Your task to perform on an android device: open a bookmark in the chrome app Image 0: 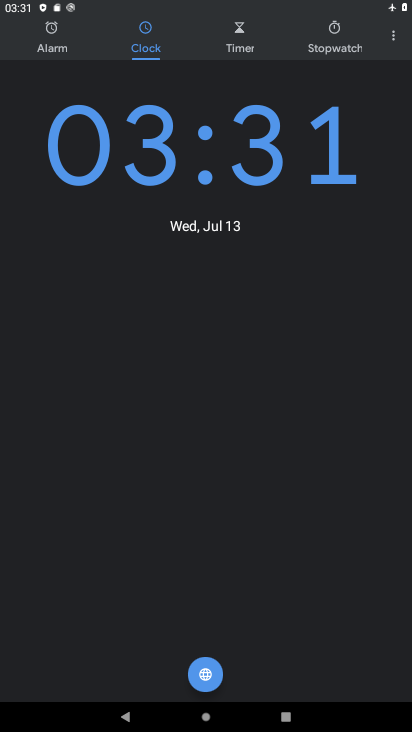
Step 0: press home button
Your task to perform on an android device: open a bookmark in the chrome app Image 1: 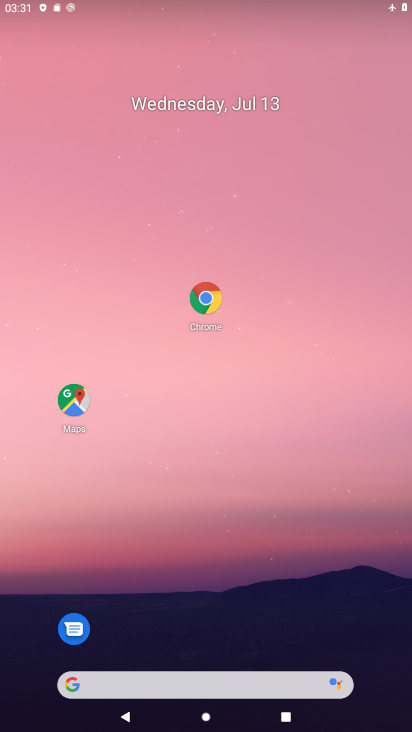
Step 1: drag from (250, 605) to (263, 266)
Your task to perform on an android device: open a bookmark in the chrome app Image 2: 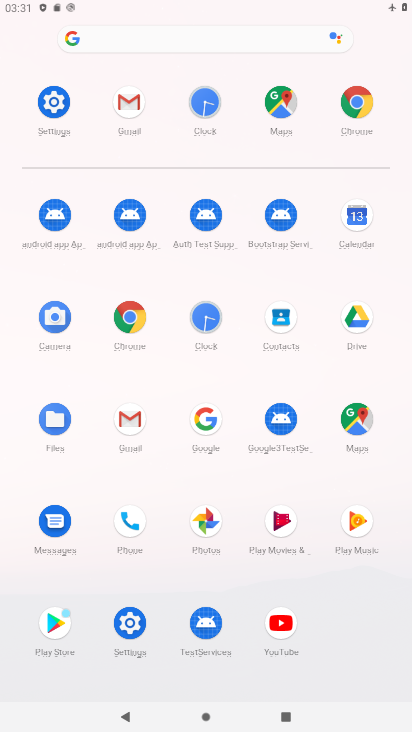
Step 2: click (354, 106)
Your task to perform on an android device: open a bookmark in the chrome app Image 3: 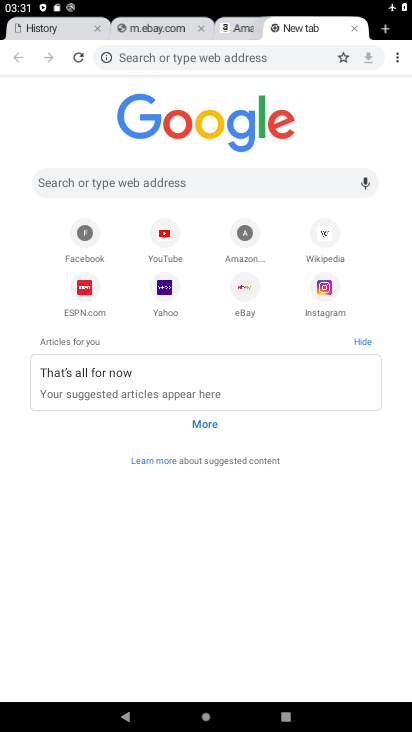
Step 3: click (364, 97)
Your task to perform on an android device: open a bookmark in the chrome app Image 4: 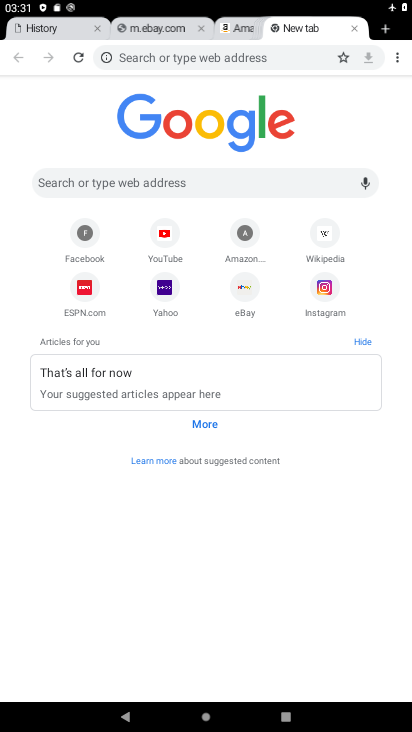
Step 4: click (358, 97)
Your task to perform on an android device: open a bookmark in the chrome app Image 5: 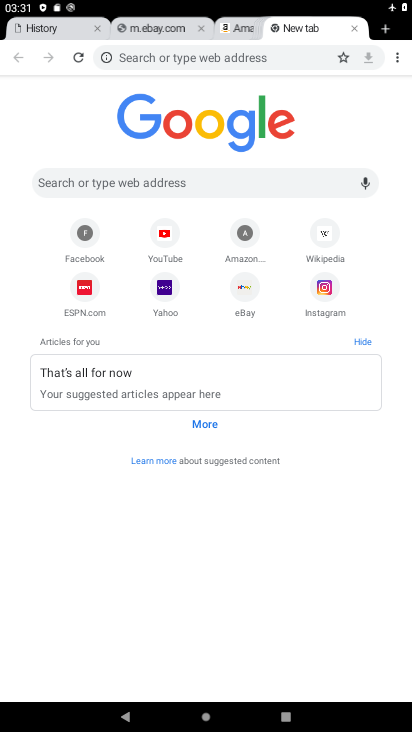
Step 5: click (405, 53)
Your task to perform on an android device: open a bookmark in the chrome app Image 6: 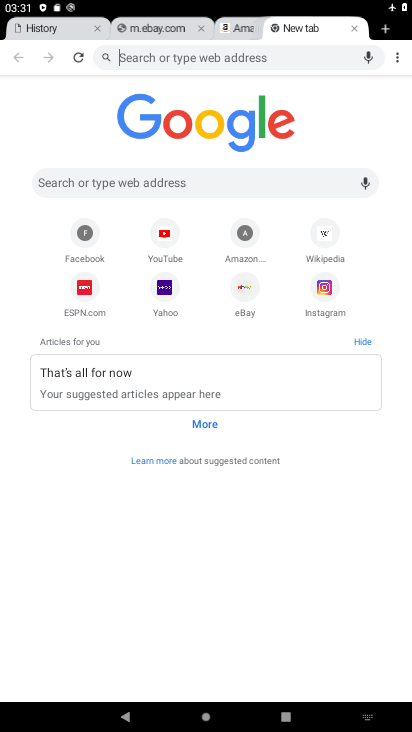
Step 6: click (409, 55)
Your task to perform on an android device: open a bookmark in the chrome app Image 7: 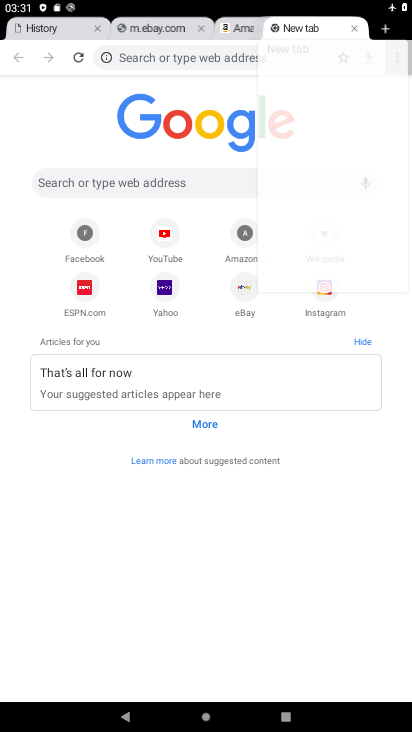
Step 7: click (386, 55)
Your task to perform on an android device: open a bookmark in the chrome app Image 8: 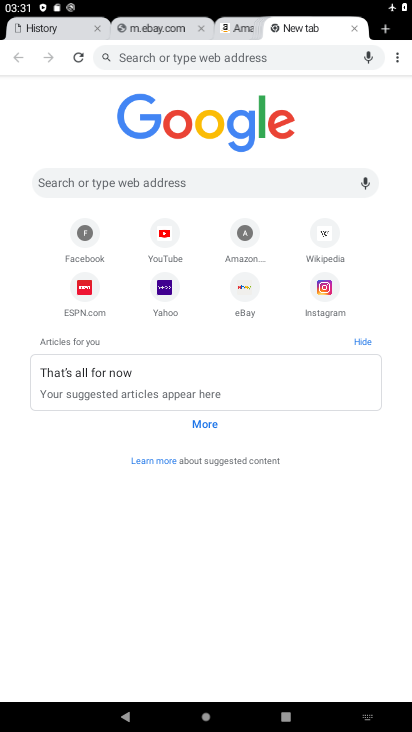
Step 8: click (395, 53)
Your task to perform on an android device: open a bookmark in the chrome app Image 9: 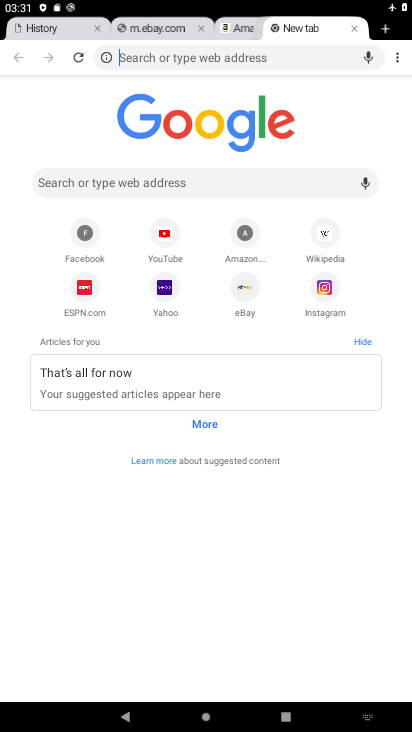
Step 9: click (384, 49)
Your task to perform on an android device: open a bookmark in the chrome app Image 10: 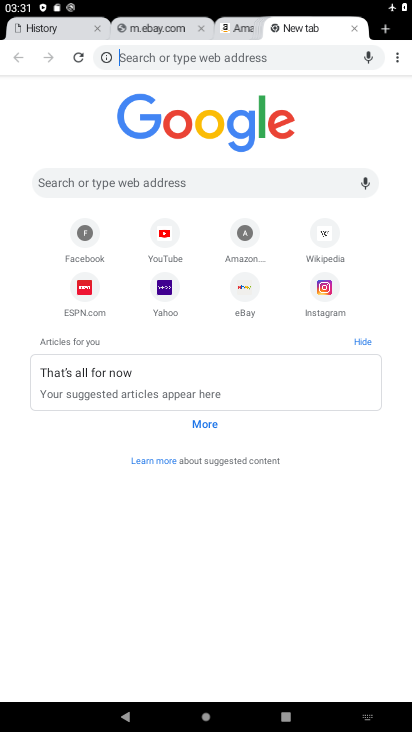
Step 10: click (394, 56)
Your task to perform on an android device: open a bookmark in the chrome app Image 11: 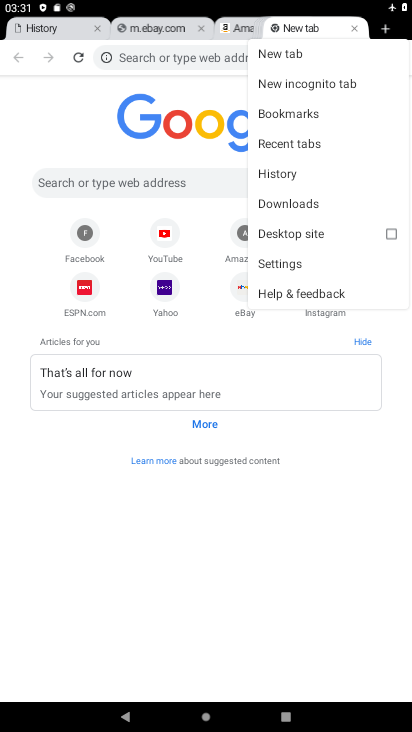
Step 11: click (309, 111)
Your task to perform on an android device: open a bookmark in the chrome app Image 12: 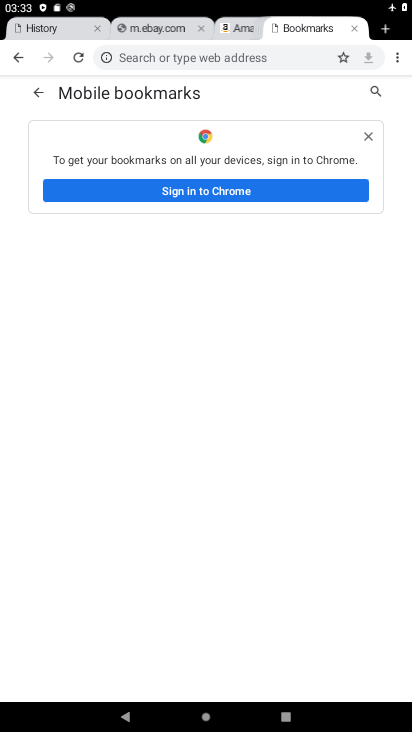
Step 12: task complete